Your task to perform on an android device: Go to Reddit.com Image 0: 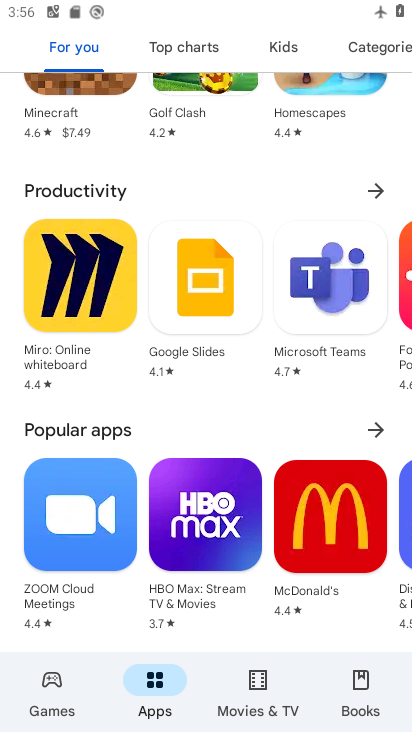
Step 0: press home button
Your task to perform on an android device: Go to Reddit.com Image 1: 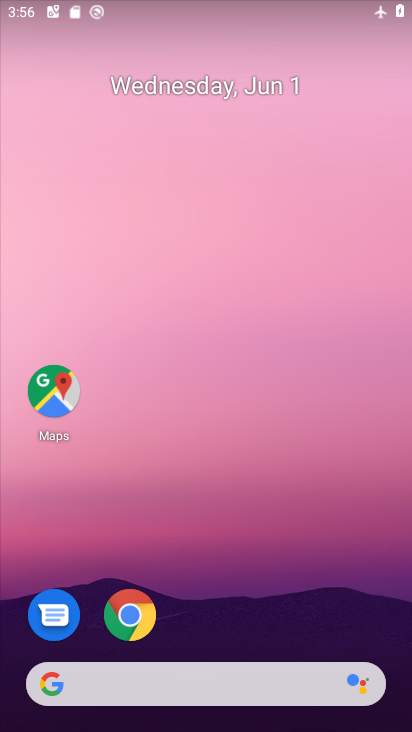
Step 1: click (132, 617)
Your task to perform on an android device: Go to Reddit.com Image 2: 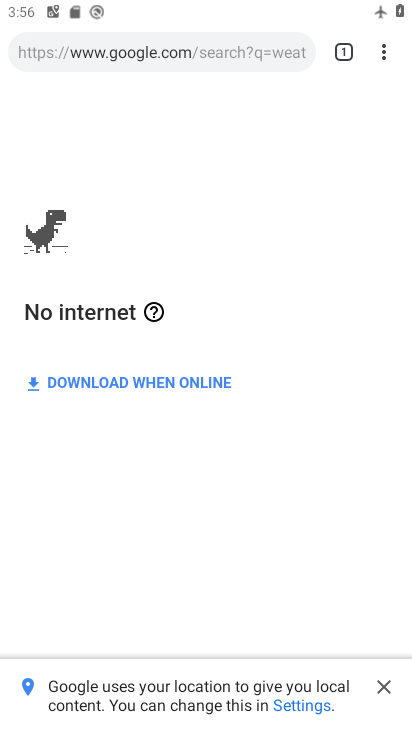
Step 2: click (228, 53)
Your task to perform on an android device: Go to Reddit.com Image 3: 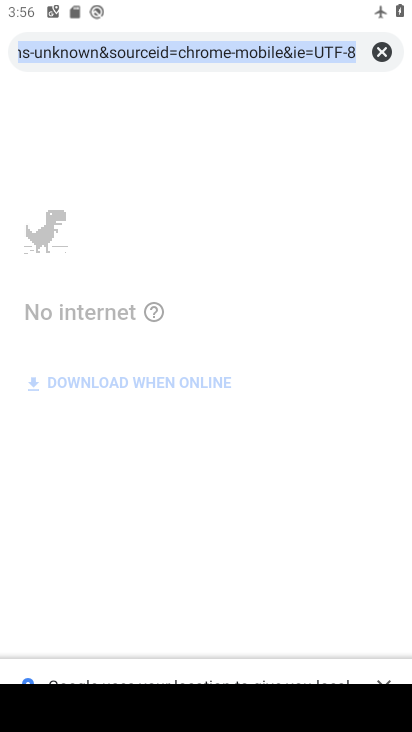
Step 3: type "reddit.com"
Your task to perform on an android device: Go to Reddit.com Image 4: 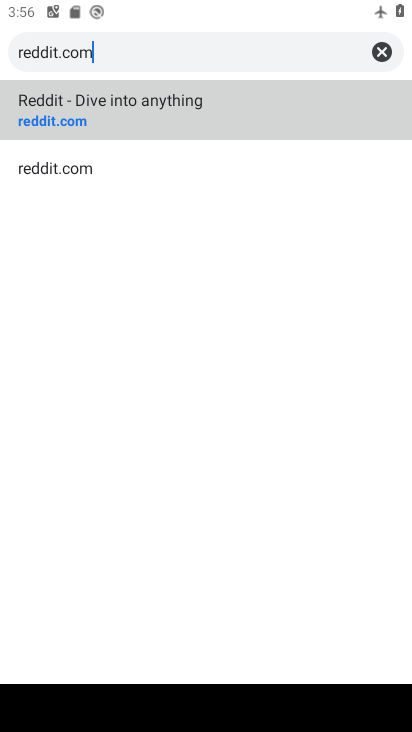
Step 4: click (150, 133)
Your task to perform on an android device: Go to Reddit.com Image 5: 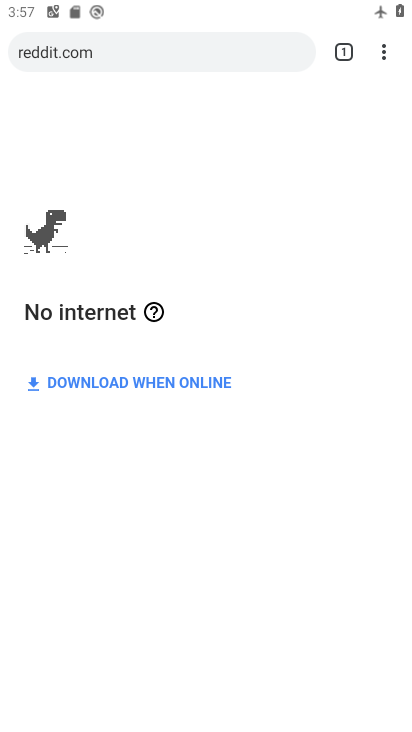
Step 5: task complete